Your task to perform on an android device: Open the phone app and click the voicemail tab. Image 0: 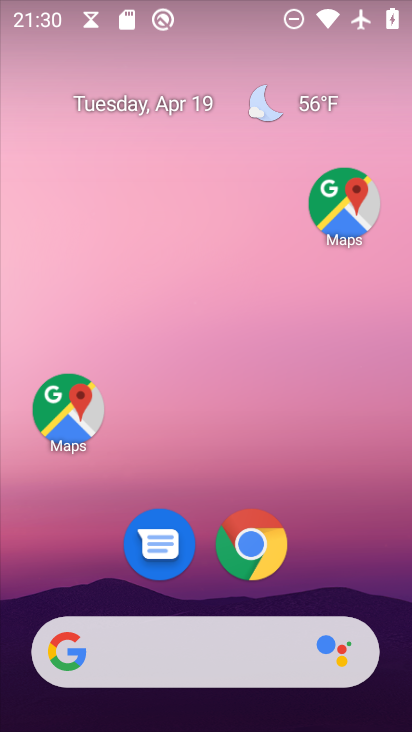
Step 0: drag from (219, 615) to (365, 117)
Your task to perform on an android device: Open the phone app and click the voicemail tab. Image 1: 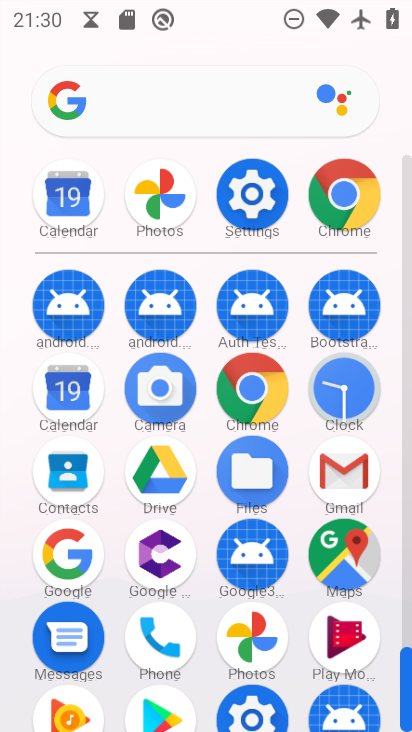
Step 1: click (168, 618)
Your task to perform on an android device: Open the phone app and click the voicemail tab. Image 2: 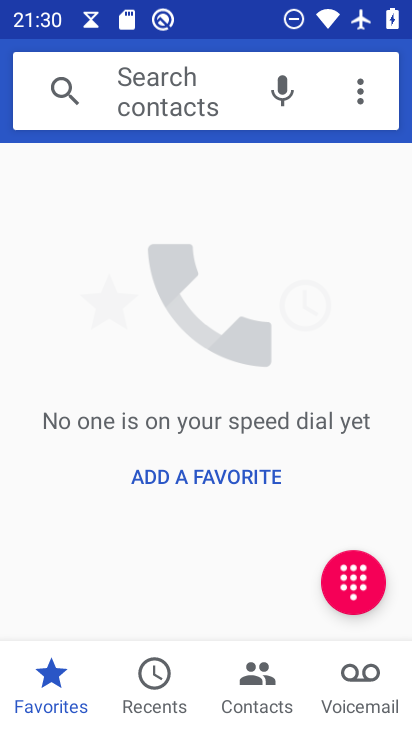
Step 2: click (366, 696)
Your task to perform on an android device: Open the phone app and click the voicemail tab. Image 3: 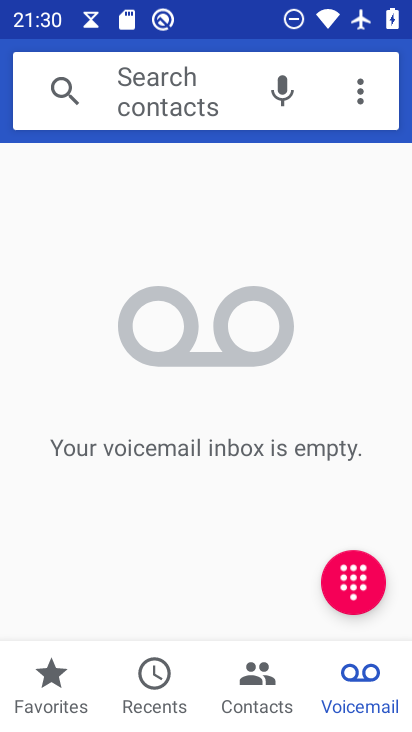
Step 3: task complete